Your task to perform on an android device: toggle translation in the chrome app Image 0: 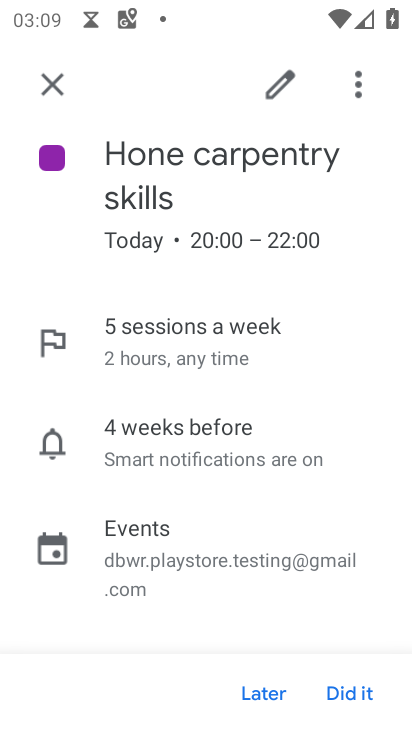
Step 0: press home button
Your task to perform on an android device: toggle translation in the chrome app Image 1: 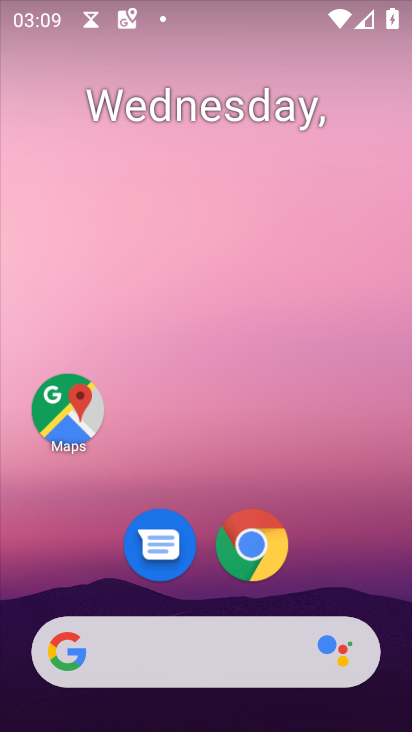
Step 1: click (239, 548)
Your task to perform on an android device: toggle translation in the chrome app Image 2: 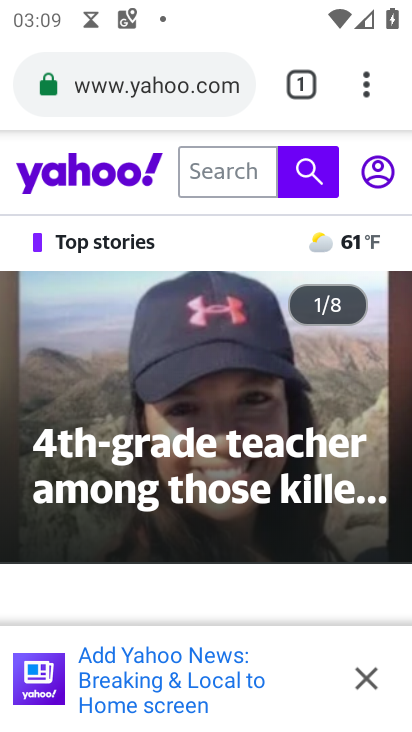
Step 2: drag from (366, 90) to (208, 600)
Your task to perform on an android device: toggle translation in the chrome app Image 3: 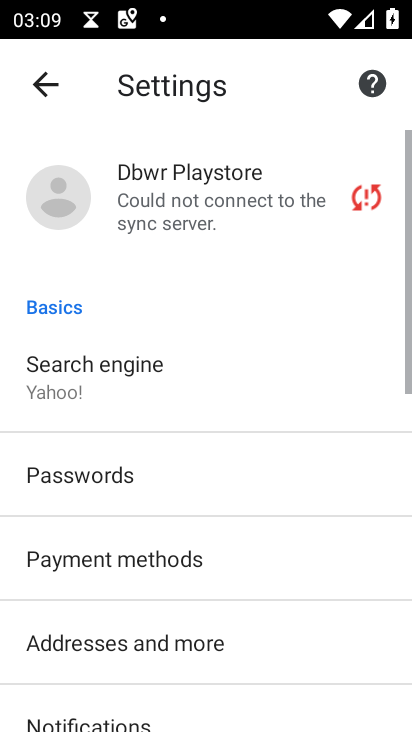
Step 3: drag from (178, 649) to (326, 54)
Your task to perform on an android device: toggle translation in the chrome app Image 4: 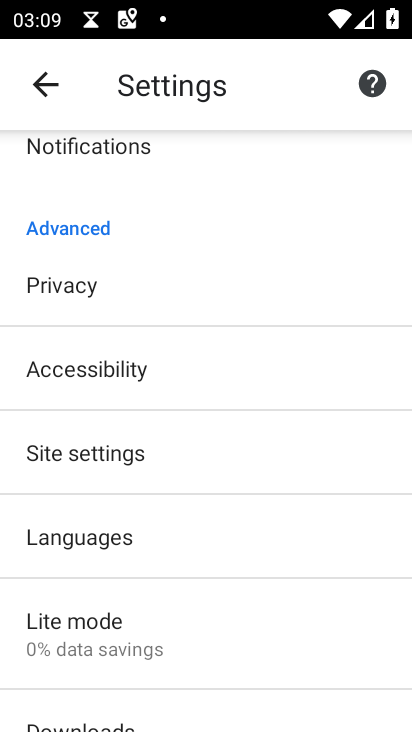
Step 4: click (152, 543)
Your task to perform on an android device: toggle translation in the chrome app Image 5: 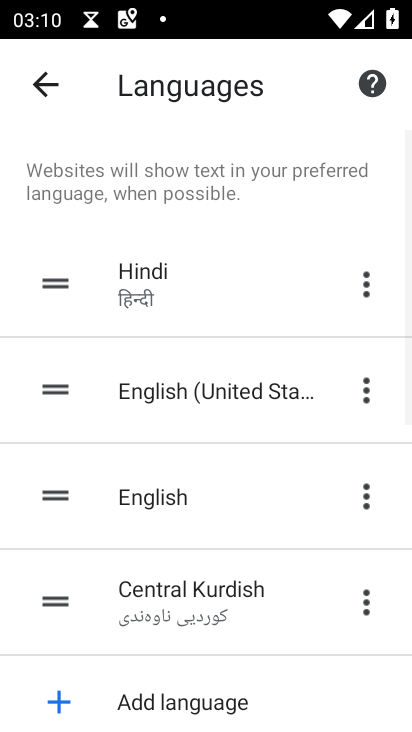
Step 5: drag from (152, 635) to (342, 138)
Your task to perform on an android device: toggle translation in the chrome app Image 6: 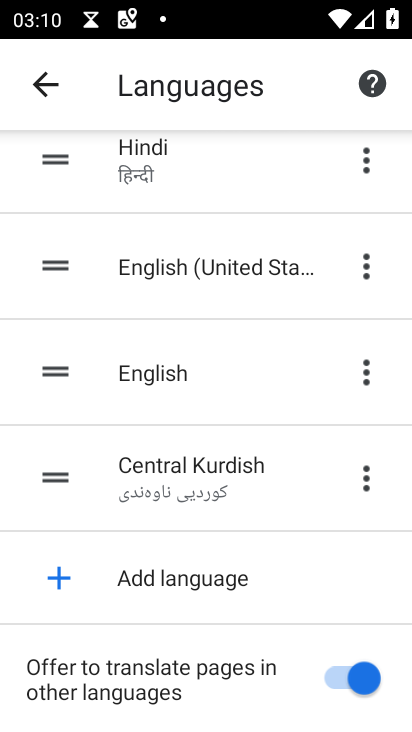
Step 6: click (337, 672)
Your task to perform on an android device: toggle translation in the chrome app Image 7: 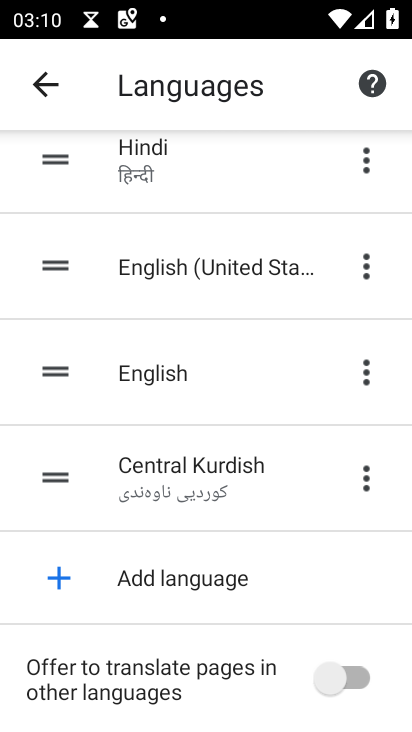
Step 7: task complete